Your task to perform on an android device: turn on bluetooth scan Image 0: 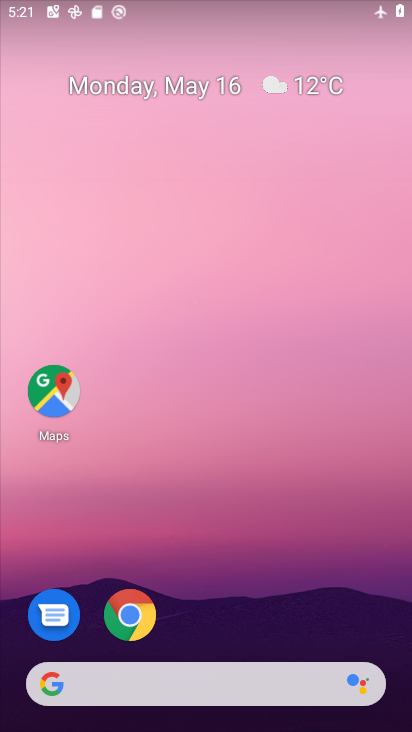
Step 0: drag from (225, 636) to (285, 148)
Your task to perform on an android device: turn on bluetooth scan Image 1: 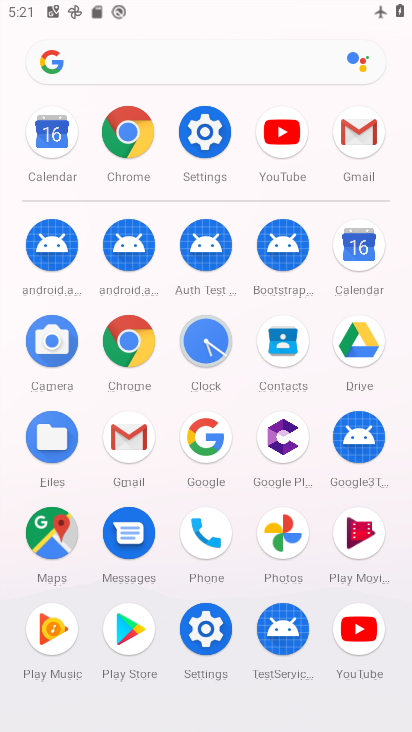
Step 1: click (189, 152)
Your task to perform on an android device: turn on bluetooth scan Image 2: 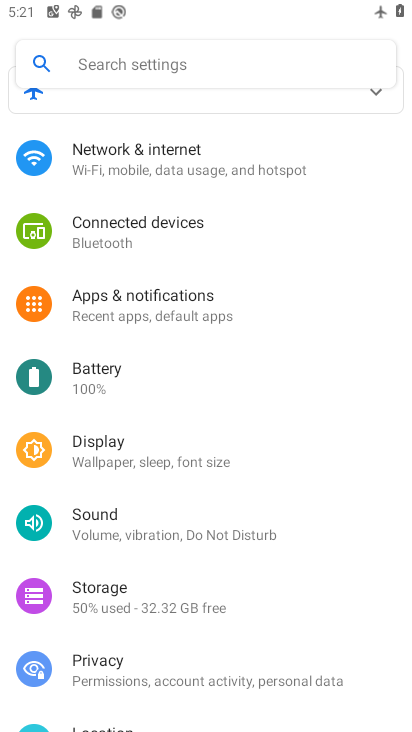
Step 2: drag from (163, 587) to (279, 142)
Your task to perform on an android device: turn on bluetooth scan Image 3: 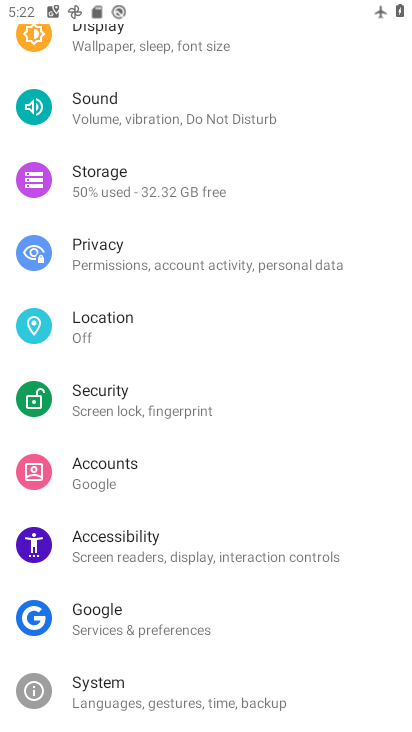
Step 3: drag from (149, 668) to (248, 237)
Your task to perform on an android device: turn on bluetooth scan Image 4: 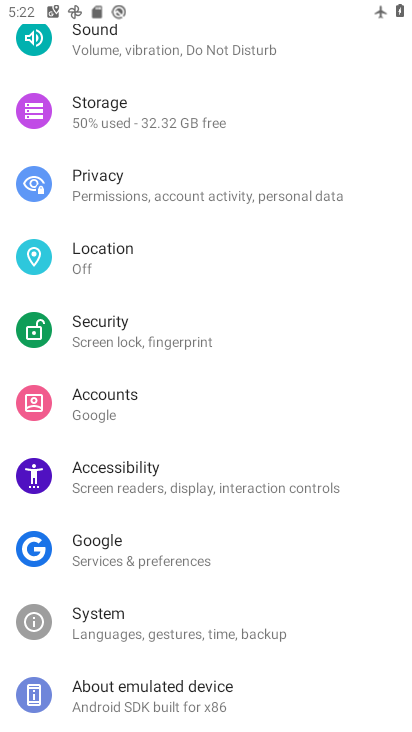
Step 4: click (151, 254)
Your task to perform on an android device: turn on bluetooth scan Image 5: 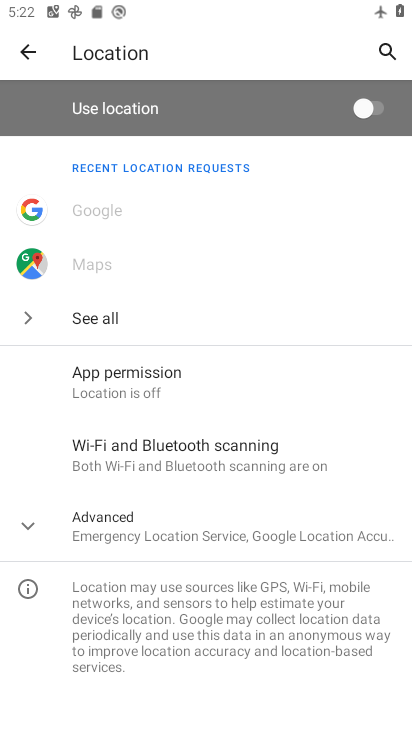
Step 5: click (170, 474)
Your task to perform on an android device: turn on bluetooth scan Image 6: 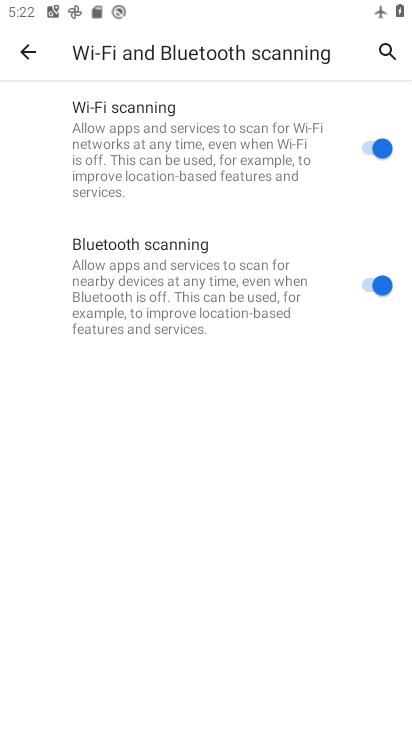
Step 6: task complete